Your task to perform on an android device: Is it going to rain this weekend? Image 0: 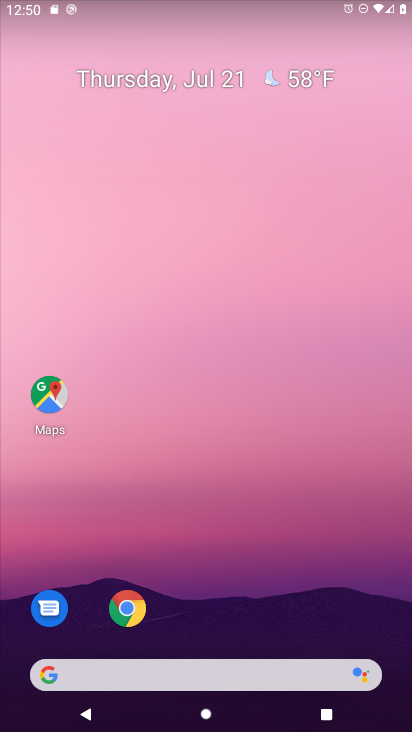
Step 0: click (47, 677)
Your task to perform on an android device: Is it going to rain this weekend? Image 1: 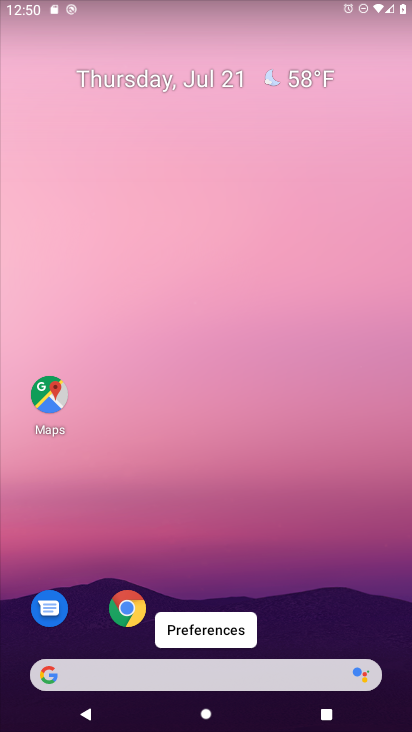
Step 1: click (47, 677)
Your task to perform on an android device: Is it going to rain this weekend? Image 2: 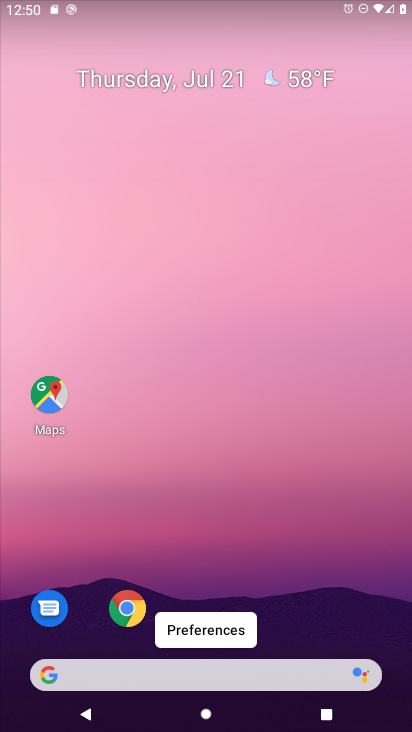
Step 2: click (47, 677)
Your task to perform on an android device: Is it going to rain this weekend? Image 3: 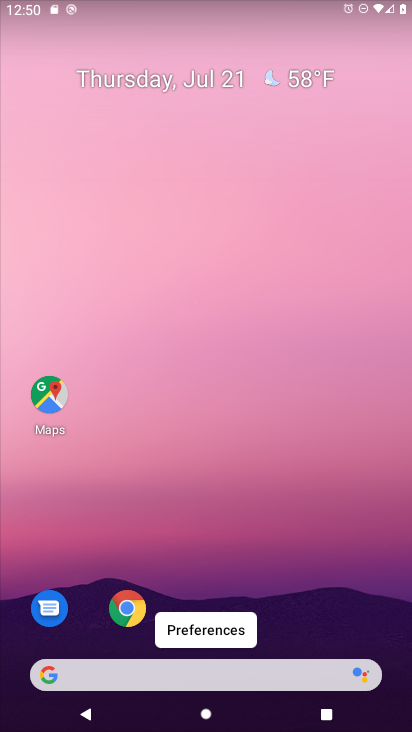
Step 3: click (45, 675)
Your task to perform on an android device: Is it going to rain this weekend? Image 4: 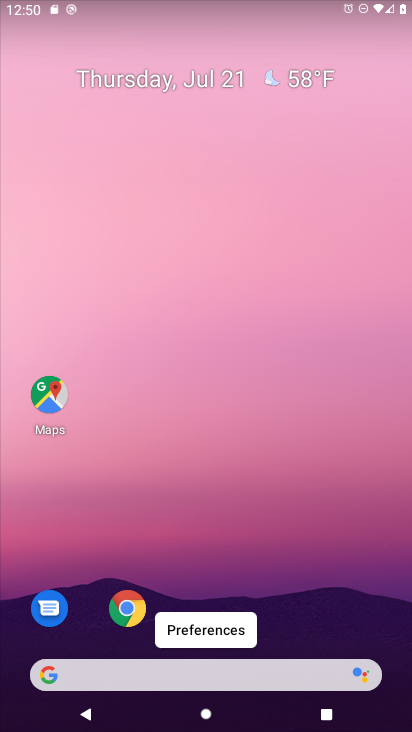
Step 4: click (45, 675)
Your task to perform on an android device: Is it going to rain this weekend? Image 5: 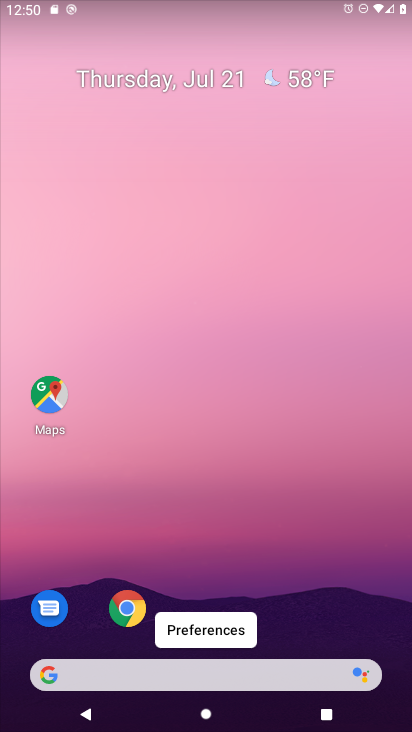
Step 5: click (46, 676)
Your task to perform on an android device: Is it going to rain this weekend? Image 6: 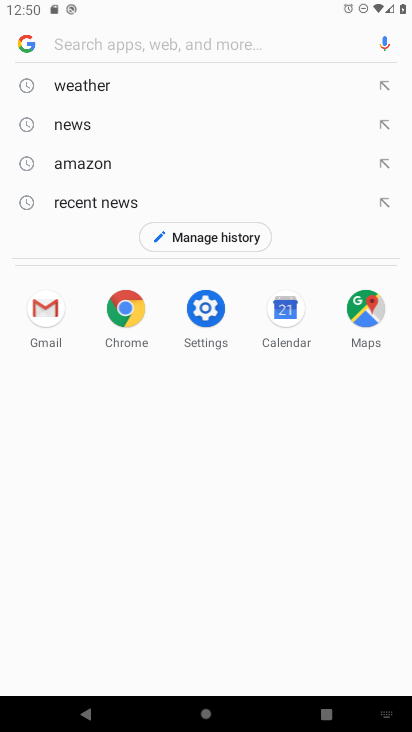
Step 6: type "rain this weekend?"
Your task to perform on an android device: Is it going to rain this weekend? Image 7: 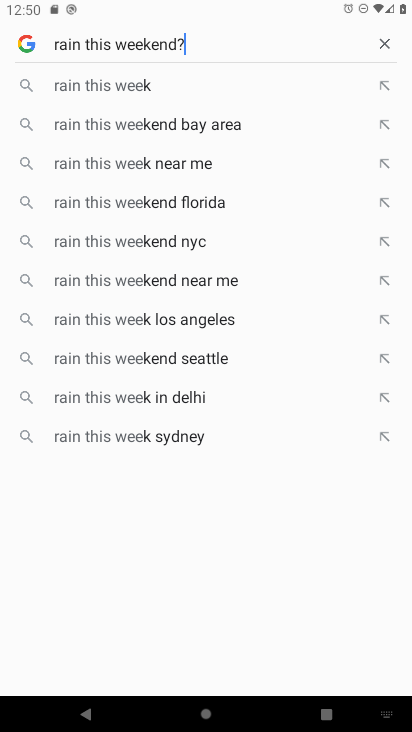
Step 7: press enter
Your task to perform on an android device: Is it going to rain this weekend? Image 8: 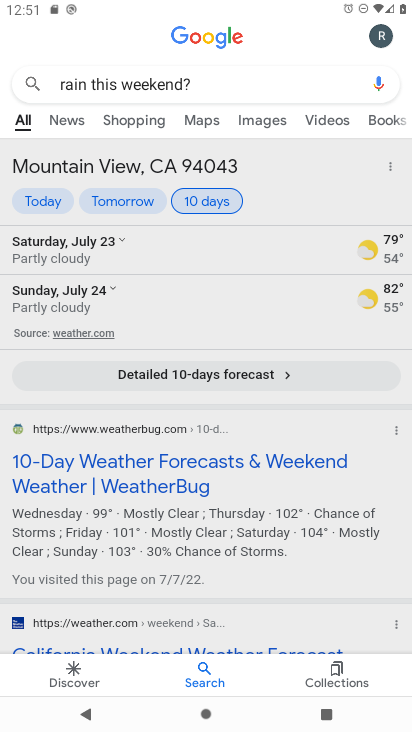
Step 8: task complete